Your task to perform on an android device: Add "bose soundlink mini" to the cart on walmart.com, then select checkout. Image 0: 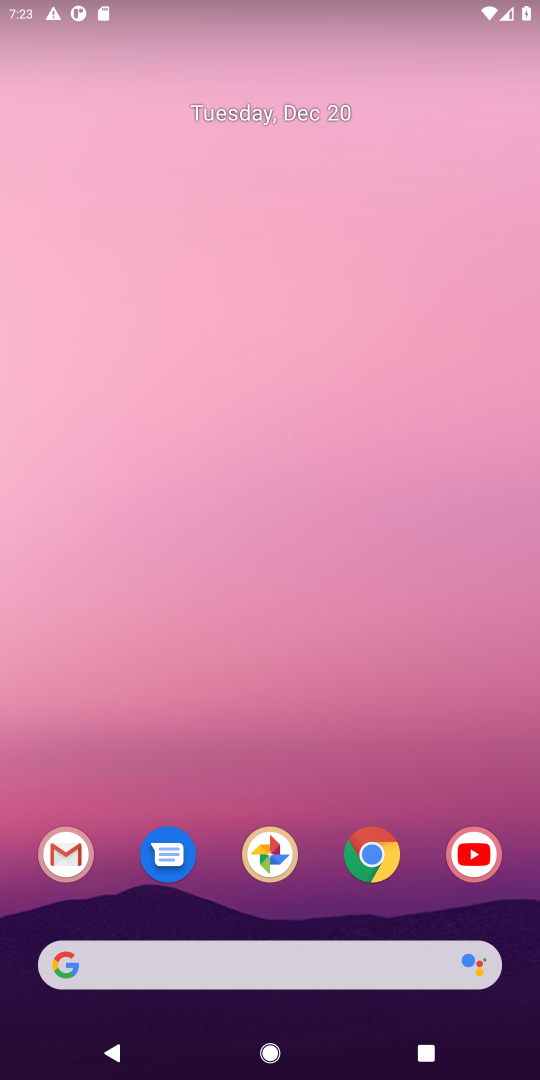
Step 0: click (366, 860)
Your task to perform on an android device: Add "bose soundlink mini" to the cart on walmart.com, then select checkout. Image 1: 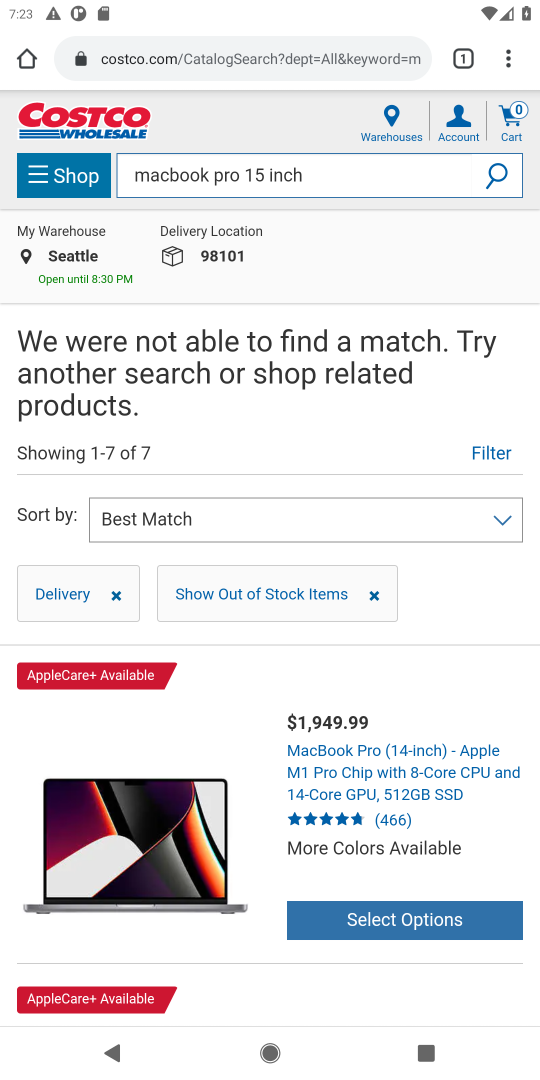
Step 1: click (189, 59)
Your task to perform on an android device: Add "bose soundlink mini" to the cart on walmart.com, then select checkout. Image 2: 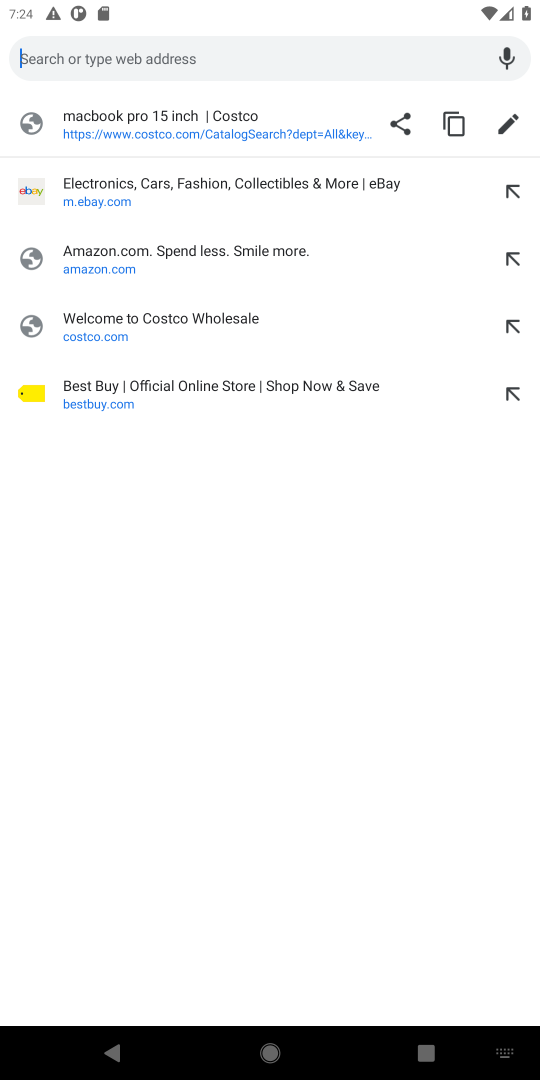
Step 2: type "walmart.com"
Your task to perform on an android device: Add "bose soundlink mini" to the cart on walmart.com, then select checkout. Image 3: 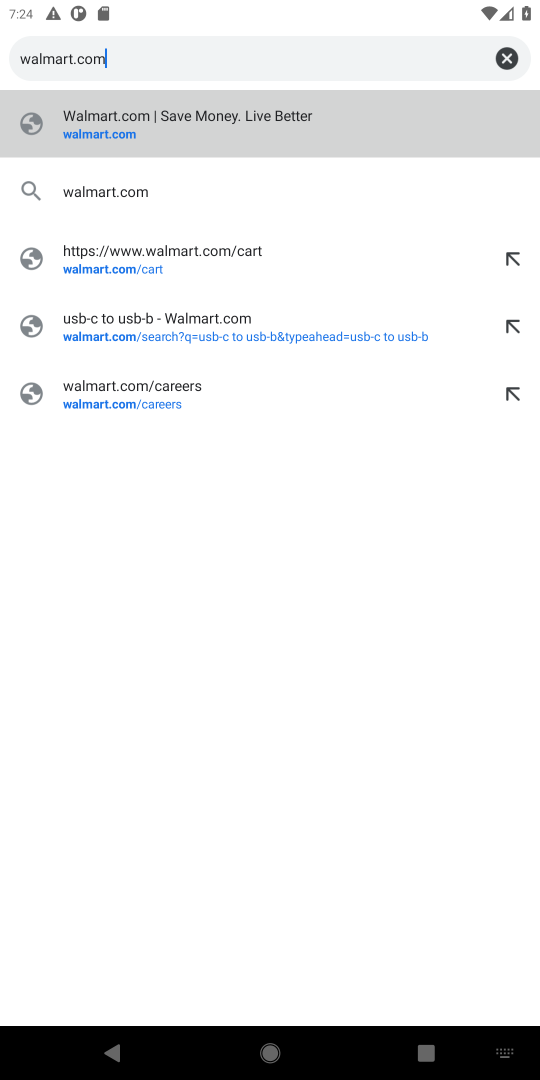
Step 3: click (96, 149)
Your task to perform on an android device: Add "bose soundlink mini" to the cart on walmart.com, then select checkout. Image 4: 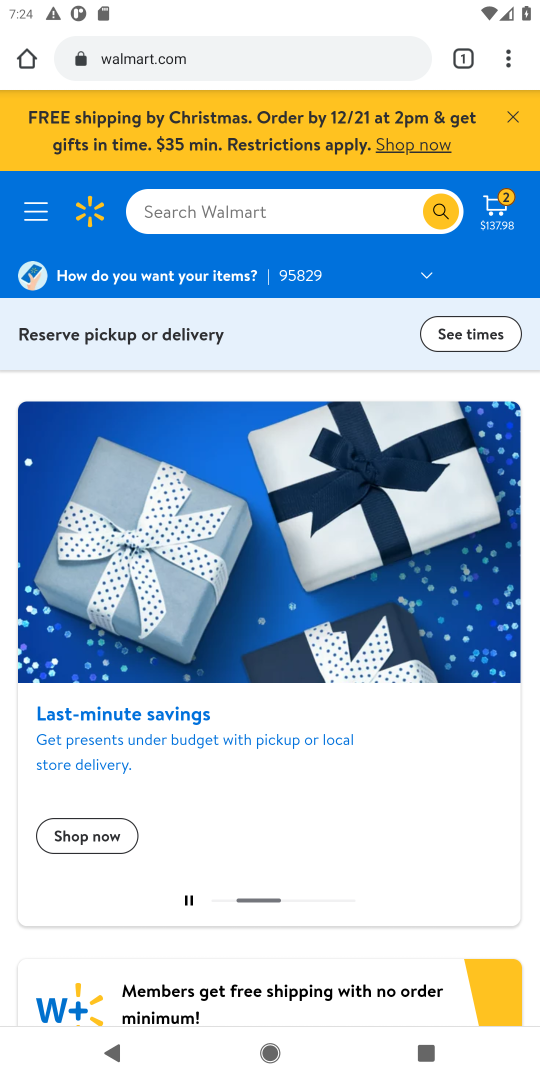
Step 4: click (200, 217)
Your task to perform on an android device: Add "bose soundlink mini" to the cart on walmart.com, then select checkout. Image 5: 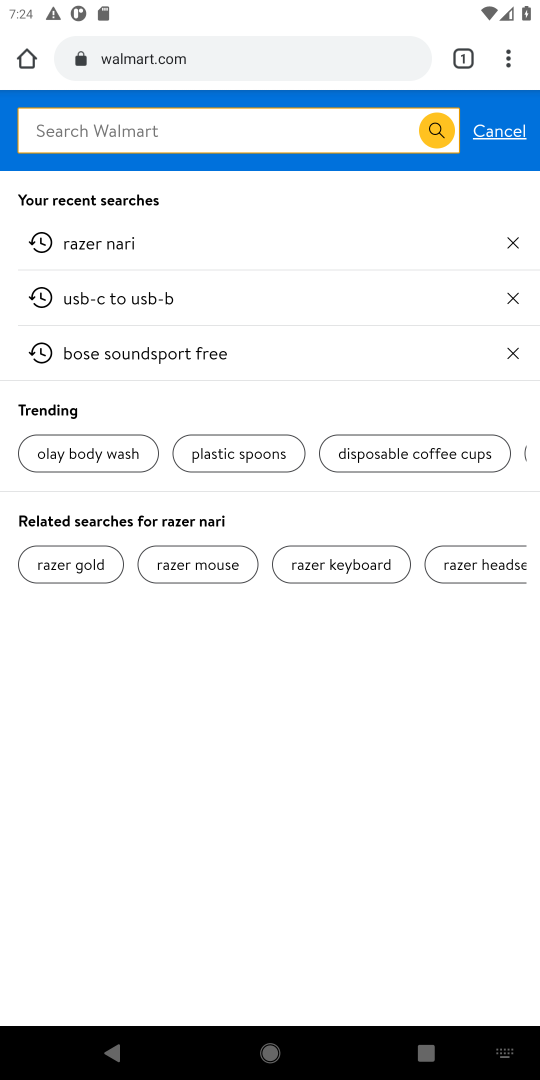
Step 5: type "bose soundlink mini"
Your task to perform on an android device: Add "bose soundlink mini" to the cart on walmart.com, then select checkout. Image 6: 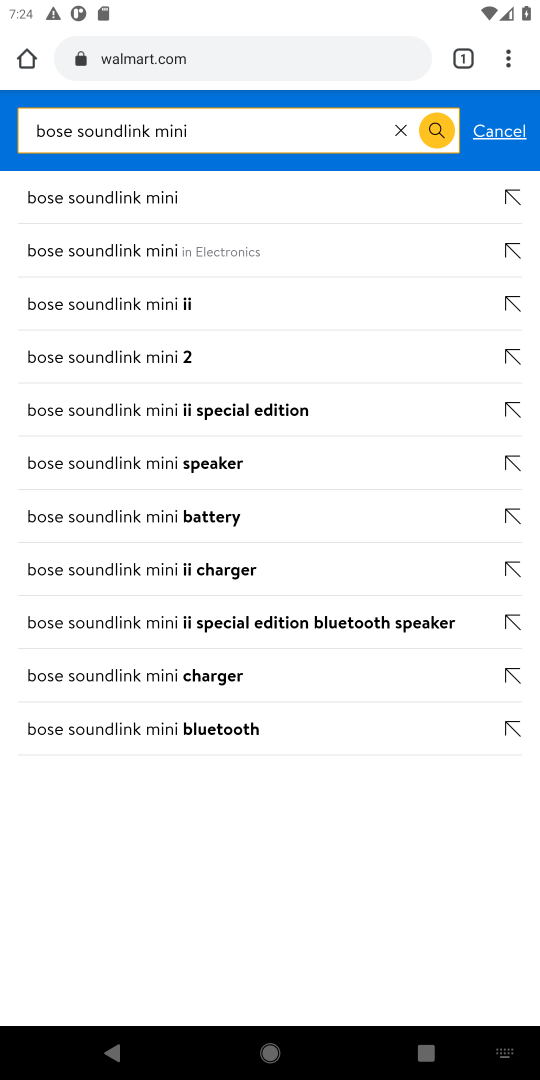
Step 6: click (147, 199)
Your task to perform on an android device: Add "bose soundlink mini" to the cart on walmart.com, then select checkout. Image 7: 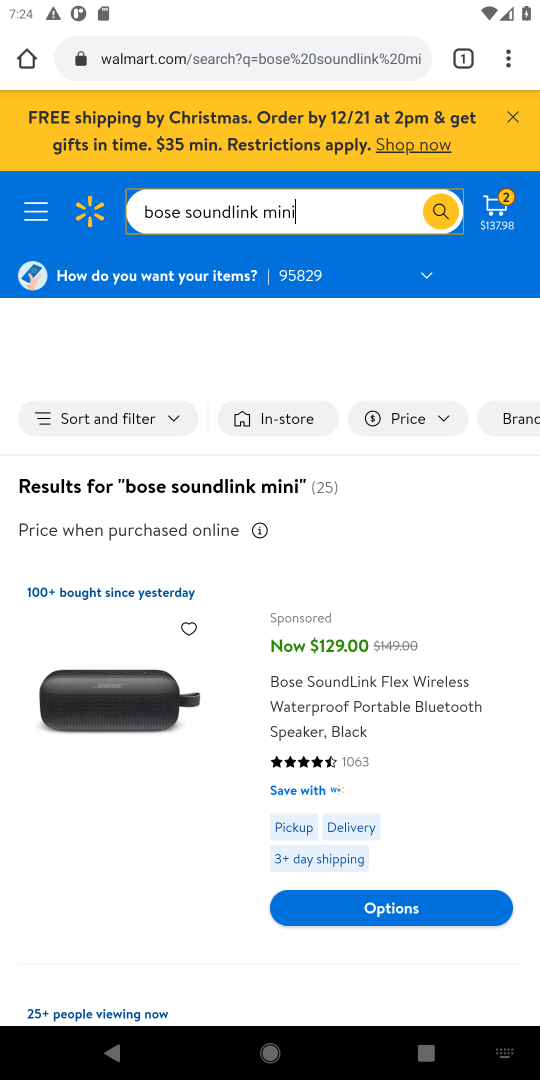
Step 7: task complete